Your task to perform on an android device: Open internet settings Image 0: 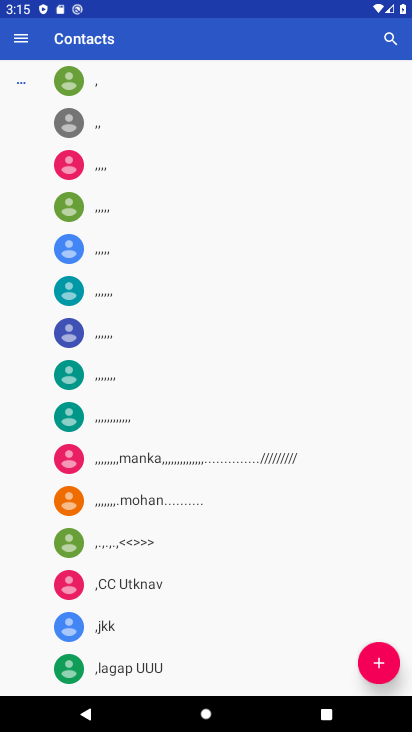
Step 0: drag from (263, 5) to (134, 678)
Your task to perform on an android device: Open internet settings Image 1: 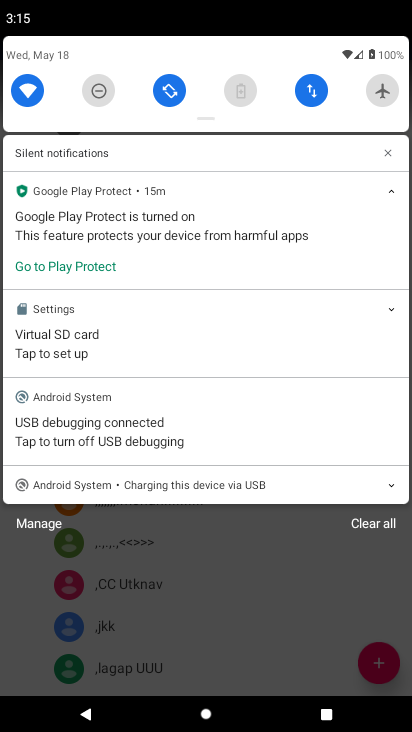
Step 1: click (323, 87)
Your task to perform on an android device: Open internet settings Image 2: 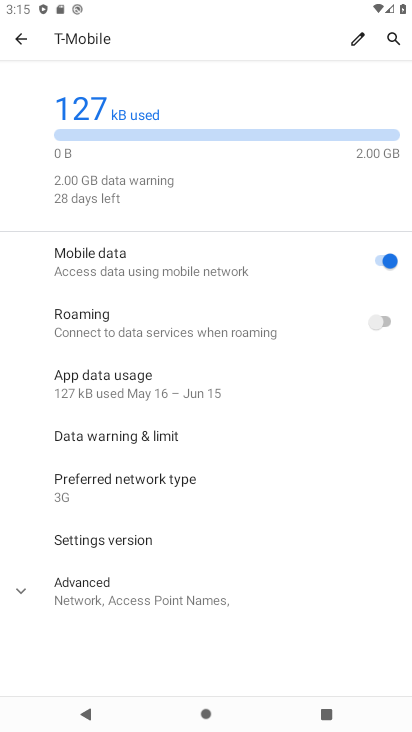
Step 2: task complete